Your task to perform on an android device: toggle wifi Image 0: 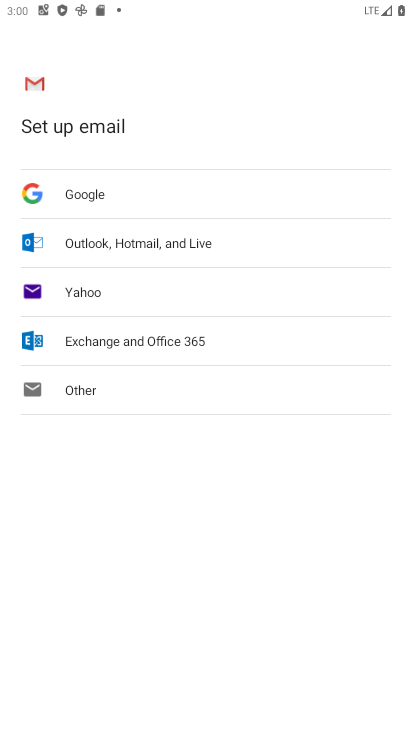
Step 0: press home button
Your task to perform on an android device: toggle wifi Image 1: 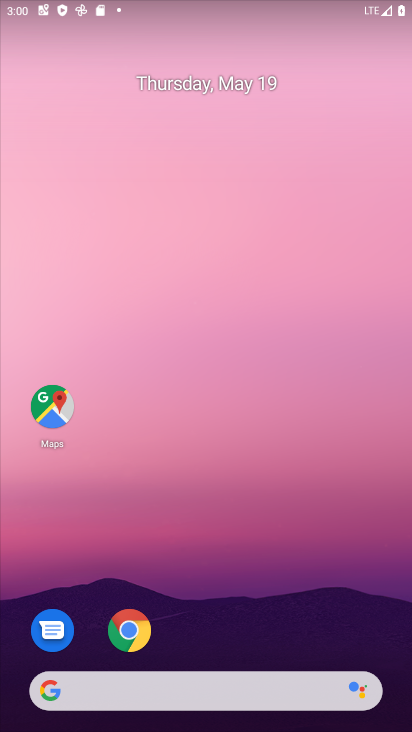
Step 1: drag from (377, 639) to (282, 29)
Your task to perform on an android device: toggle wifi Image 2: 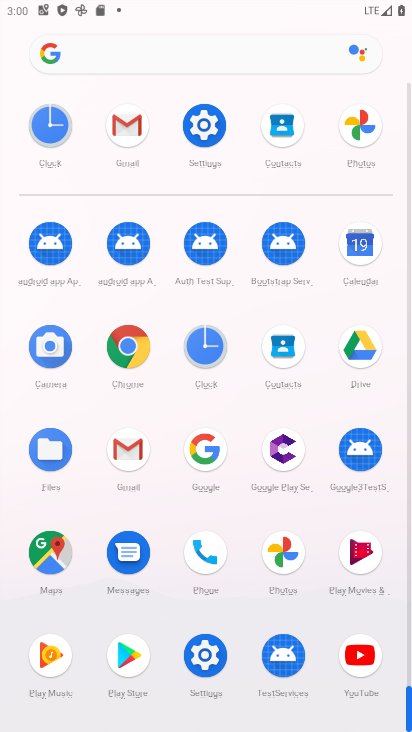
Step 2: click (203, 655)
Your task to perform on an android device: toggle wifi Image 3: 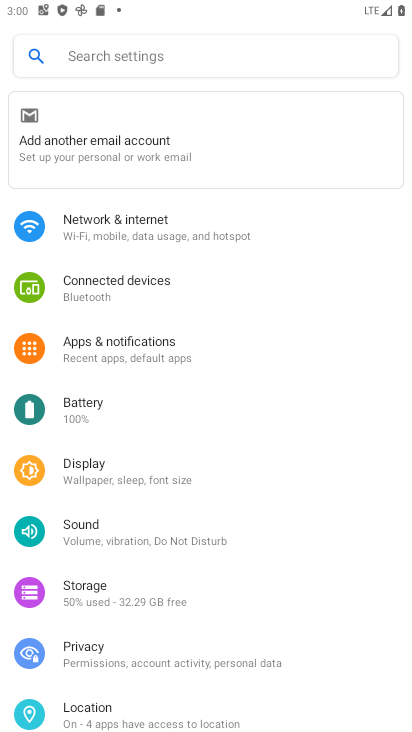
Step 3: click (113, 224)
Your task to perform on an android device: toggle wifi Image 4: 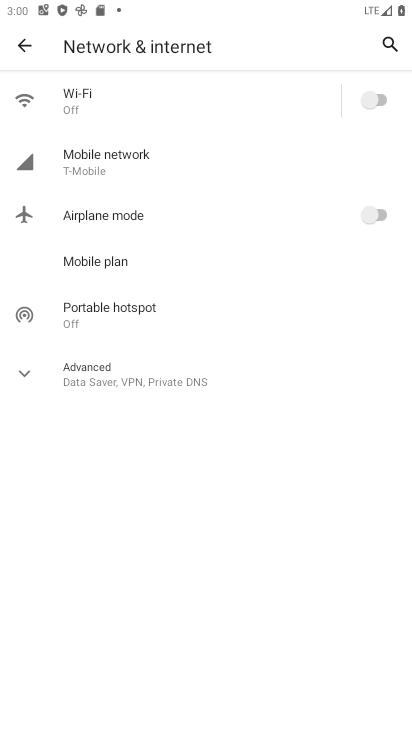
Step 4: click (383, 97)
Your task to perform on an android device: toggle wifi Image 5: 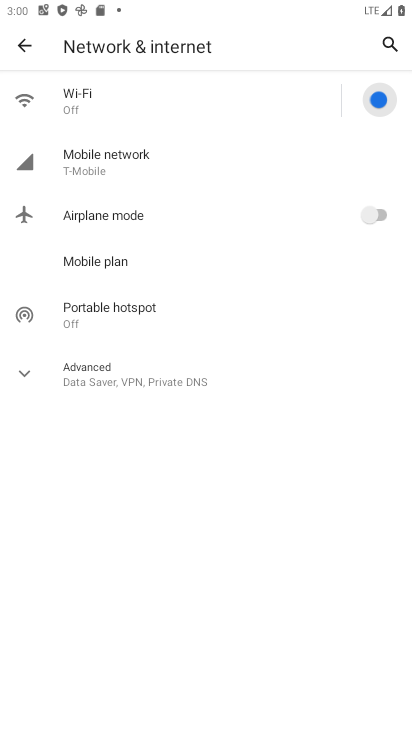
Step 5: click (383, 97)
Your task to perform on an android device: toggle wifi Image 6: 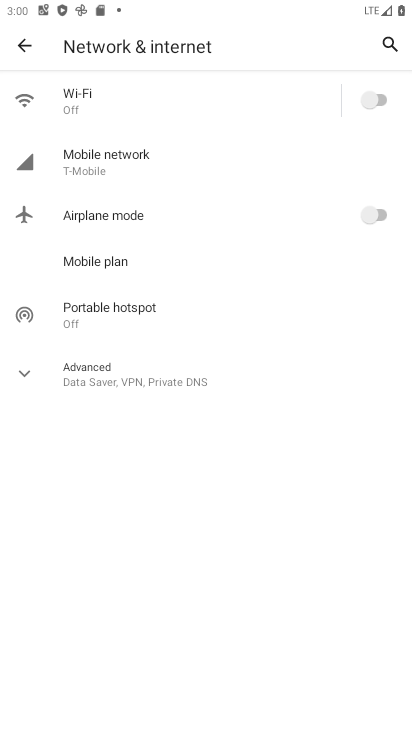
Step 6: click (383, 98)
Your task to perform on an android device: toggle wifi Image 7: 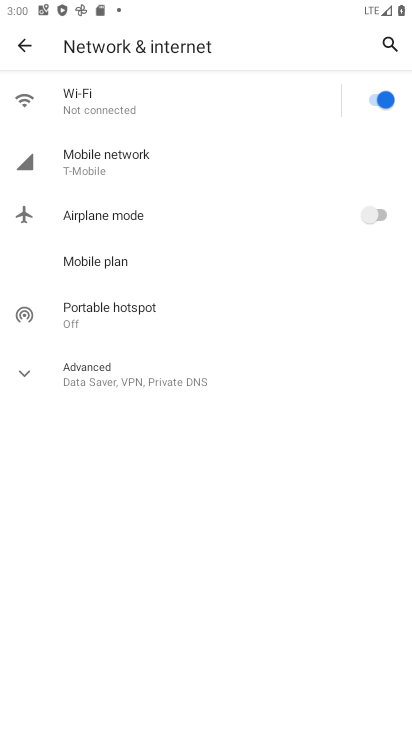
Step 7: task complete